Your task to perform on an android device: turn off priority inbox in the gmail app Image 0: 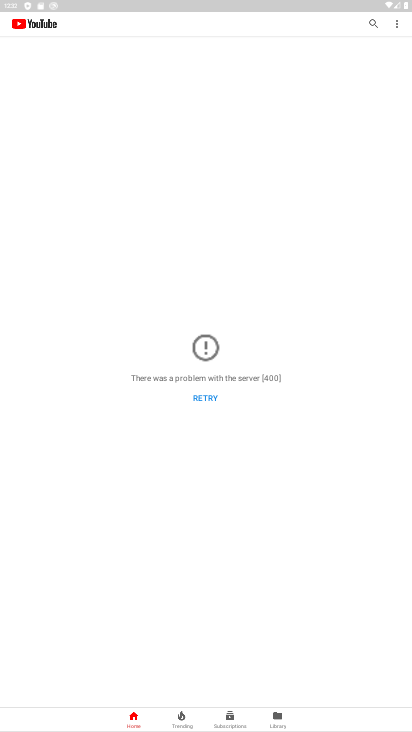
Step 0: press home button
Your task to perform on an android device: turn off priority inbox in the gmail app Image 1: 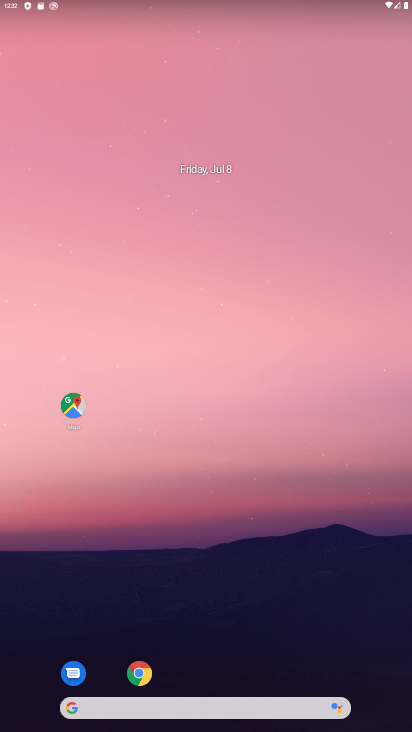
Step 1: drag from (213, 669) to (206, 61)
Your task to perform on an android device: turn off priority inbox in the gmail app Image 2: 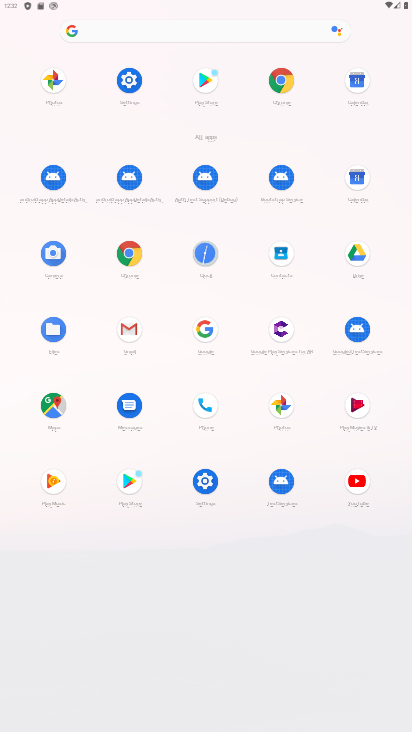
Step 2: click (129, 321)
Your task to perform on an android device: turn off priority inbox in the gmail app Image 3: 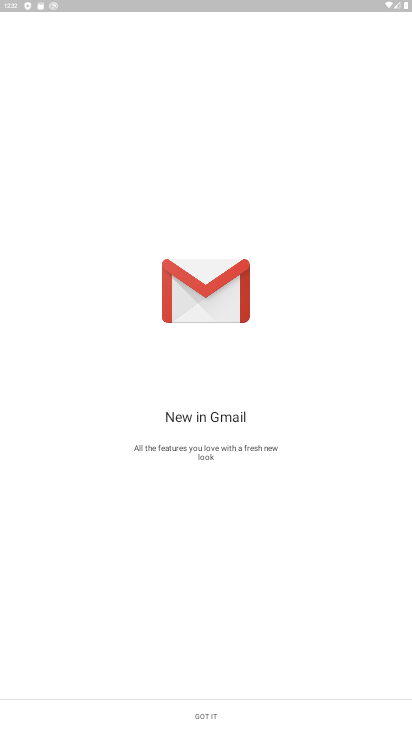
Step 3: click (205, 713)
Your task to perform on an android device: turn off priority inbox in the gmail app Image 4: 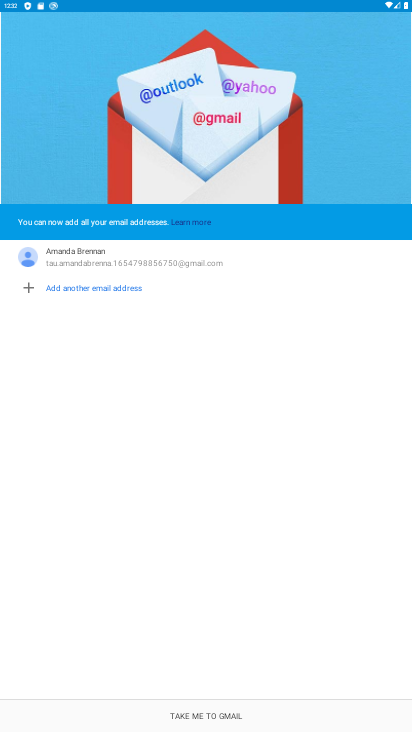
Step 4: click (205, 713)
Your task to perform on an android device: turn off priority inbox in the gmail app Image 5: 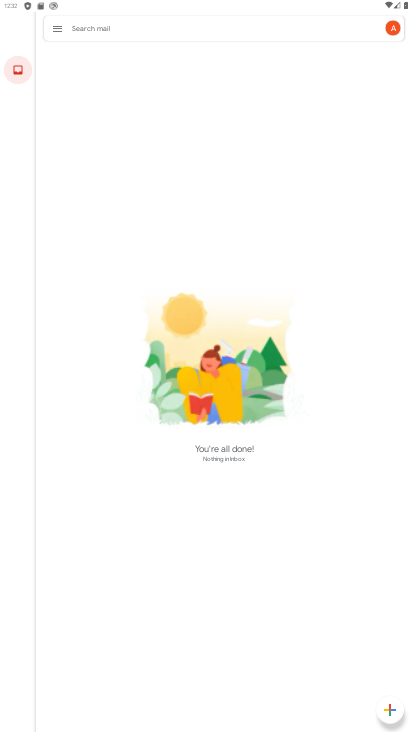
Step 5: click (56, 29)
Your task to perform on an android device: turn off priority inbox in the gmail app Image 6: 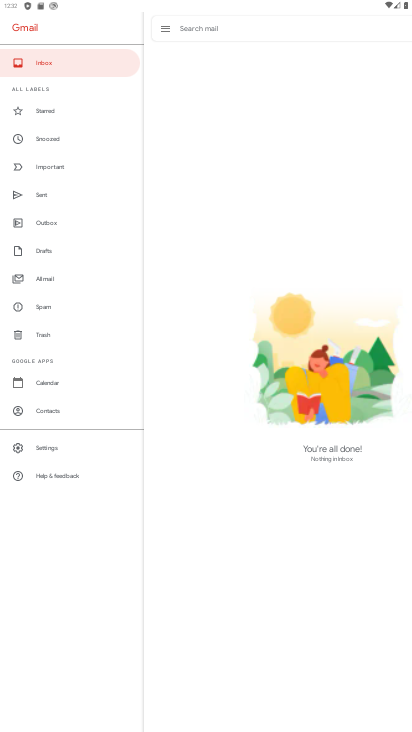
Step 6: click (44, 444)
Your task to perform on an android device: turn off priority inbox in the gmail app Image 7: 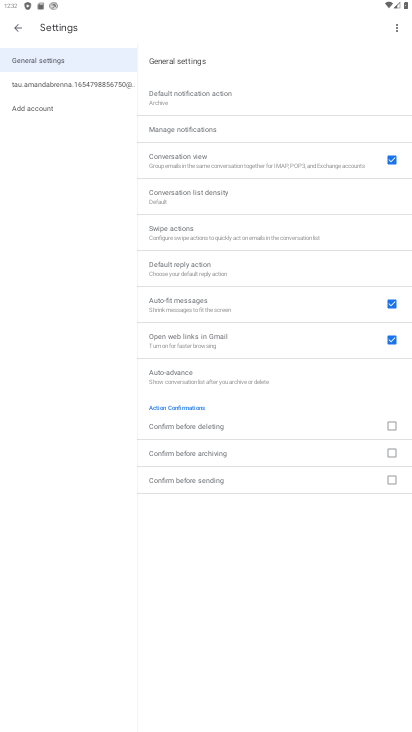
Step 7: click (76, 78)
Your task to perform on an android device: turn off priority inbox in the gmail app Image 8: 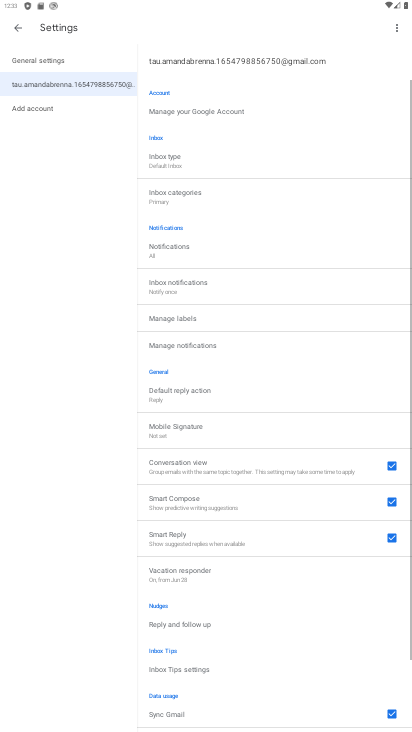
Step 8: click (180, 161)
Your task to perform on an android device: turn off priority inbox in the gmail app Image 9: 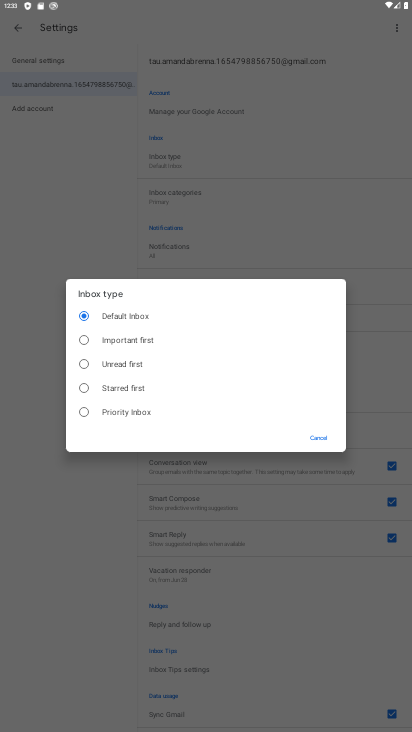
Step 9: click (83, 384)
Your task to perform on an android device: turn off priority inbox in the gmail app Image 10: 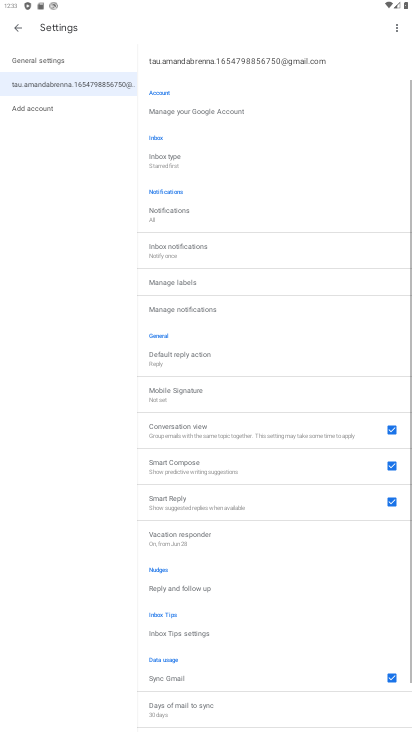
Step 10: task complete